Your task to perform on an android device: toggle show notifications on the lock screen Image 0: 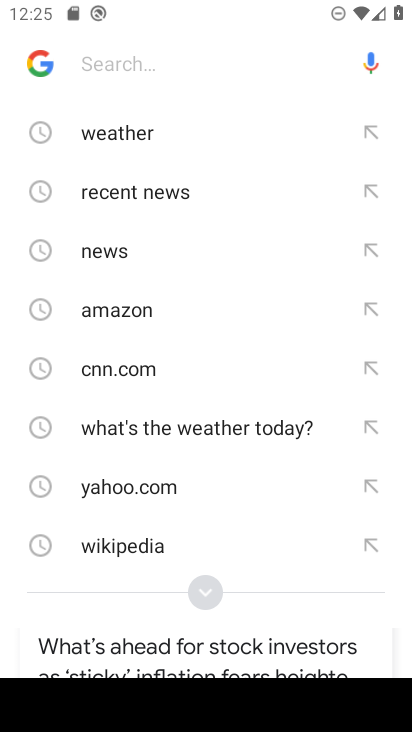
Step 0: press home button
Your task to perform on an android device: toggle show notifications on the lock screen Image 1: 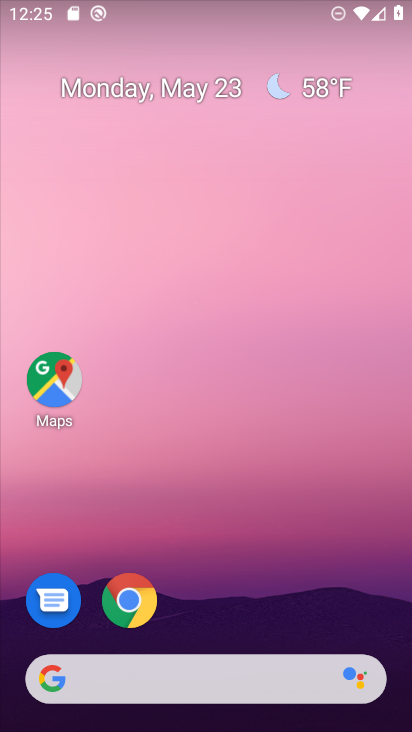
Step 1: drag from (301, 491) to (297, 97)
Your task to perform on an android device: toggle show notifications on the lock screen Image 2: 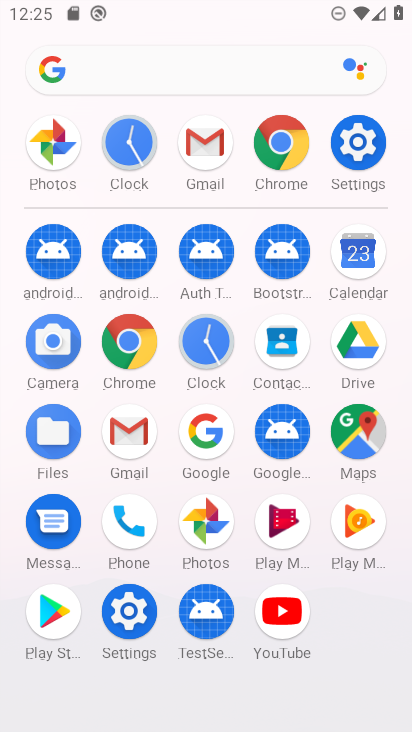
Step 2: click (357, 167)
Your task to perform on an android device: toggle show notifications on the lock screen Image 3: 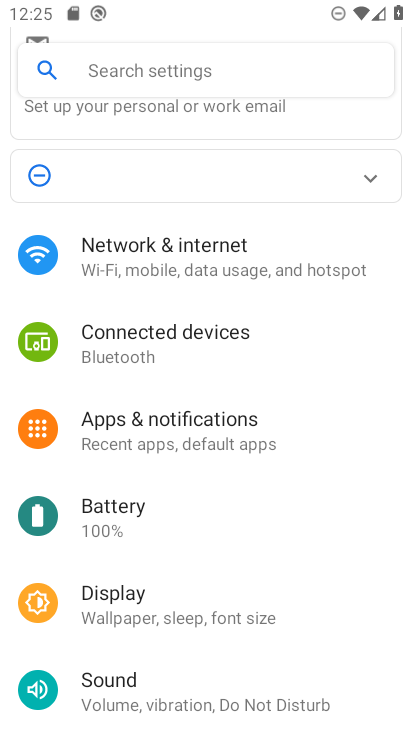
Step 3: click (216, 414)
Your task to perform on an android device: toggle show notifications on the lock screen Image 4: 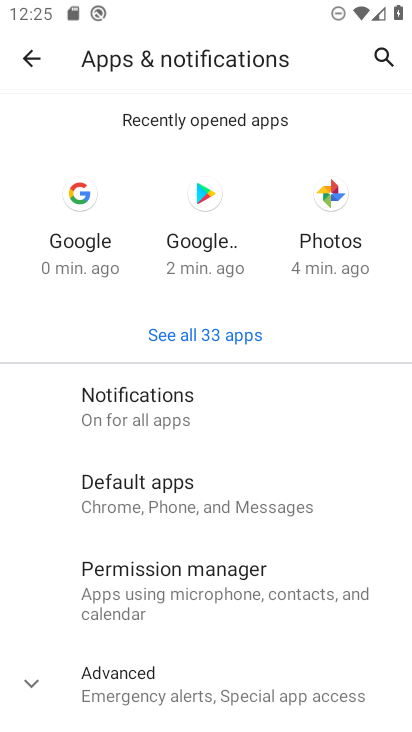
Step 4: click (182, 392)
Your task to perform on an android device: toggle show notifications on the lock screen Image 5: 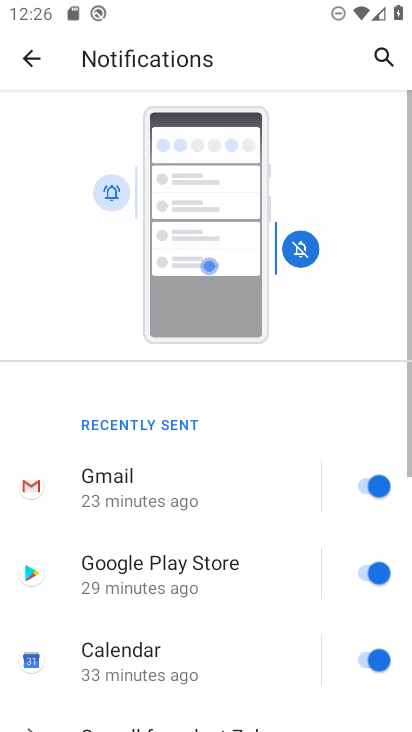
Step 5: drag from (175, 590) to (208, 174)
Your task to perform on an android device: toggle show notifications on the lock screen Image 6: 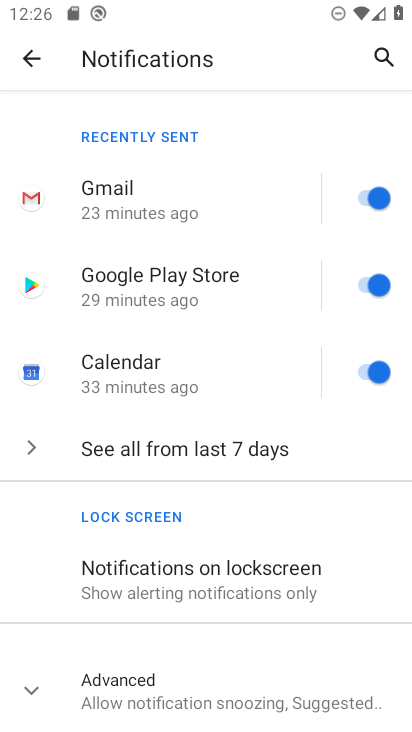
Step 6: click (248, 569)
Your task to perform on an android device: toggle show notifications on the lock screen Image 7: 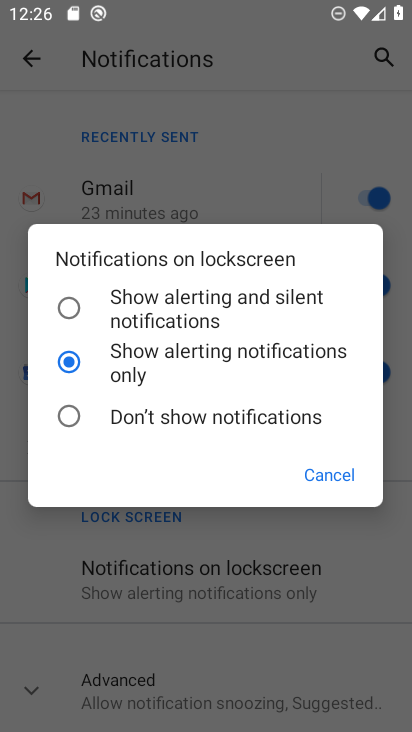
Step 7: click (126, 424)
Your task to perform on an android device: toggle show notifications on the lock screen Image 8: 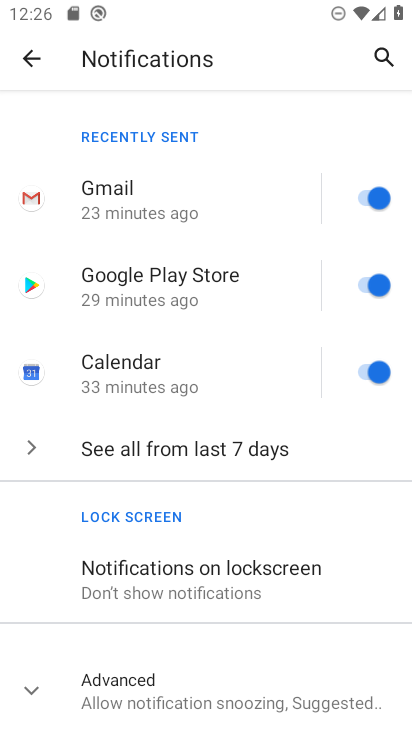
Step 8: task complete